Your task to perform on an android device: empty trash in google photos Image 0: 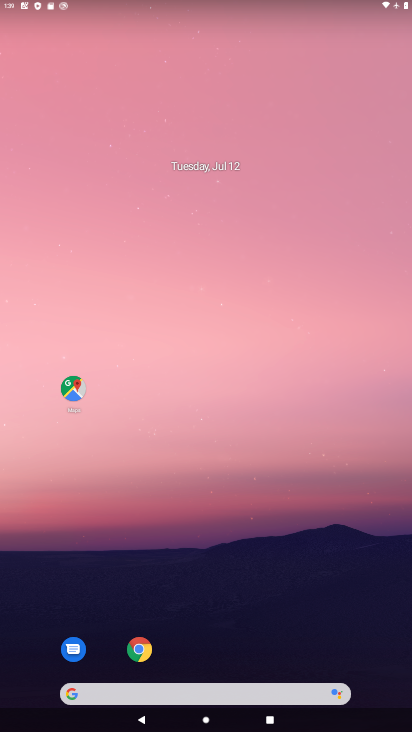
Step 0: drag from (267, 588) to (233, 222)
Your task to perform on an android device: empty trash in google photos Image 1: 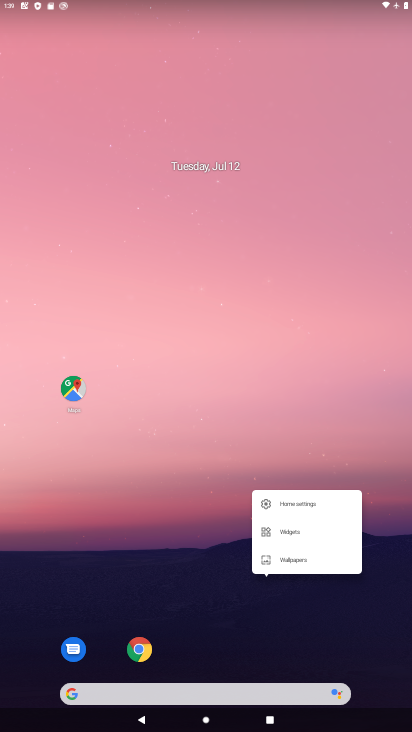
Step 1: click (166, 438)
Your task to perform on an android device: empty trash in google photos Image 2: 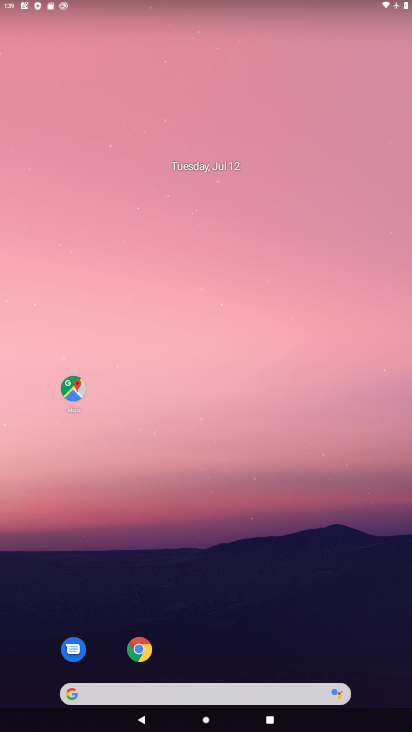
Step 2: drag from (221, 653) to (235, 84)
Your task to perform on an android device: empty trash in google photos Image 3: 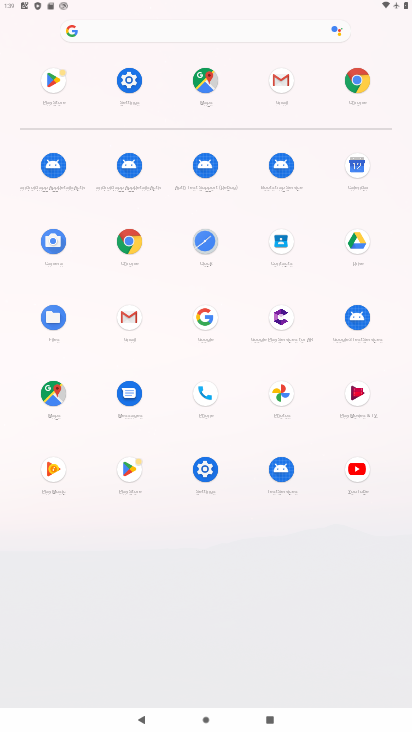
Step 3: click (266, 392)
Your task to perform on an android device: empty trash in google photos Image 4: 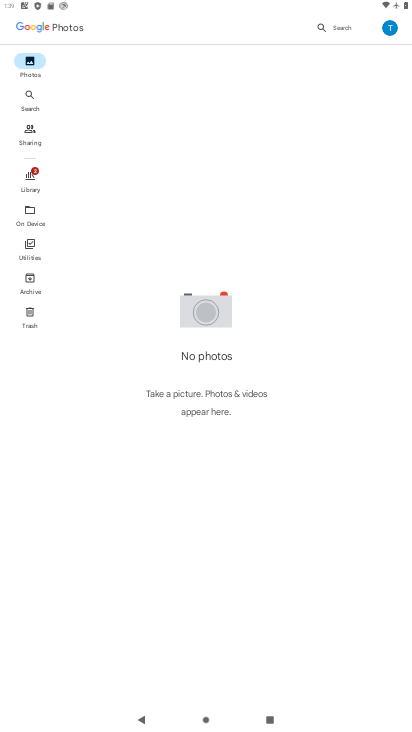
Step 4: click (31, 321)
Your task to perform on an android device: empty trash in google photos Image 5: 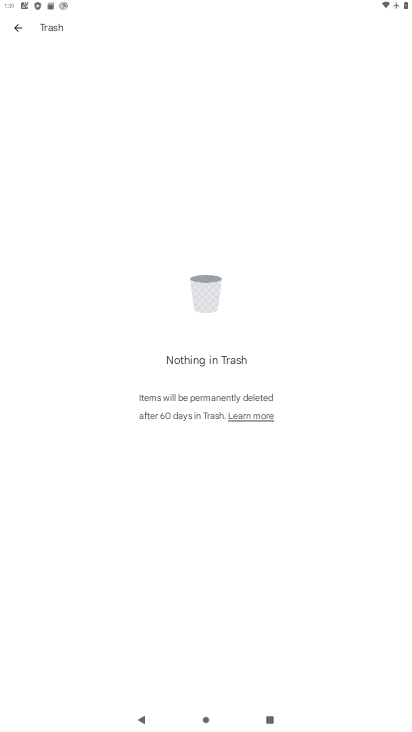
Step 5: task complete